Your task to perform on an android device: toggle notifications settings in the gmail app Image 0: 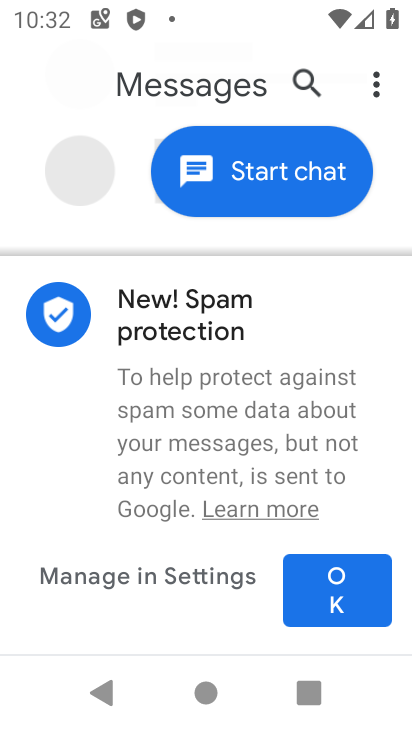
Step 0: press home button
Your task to perform on an android device: toggle notifications settings in the gmail app Image 1: 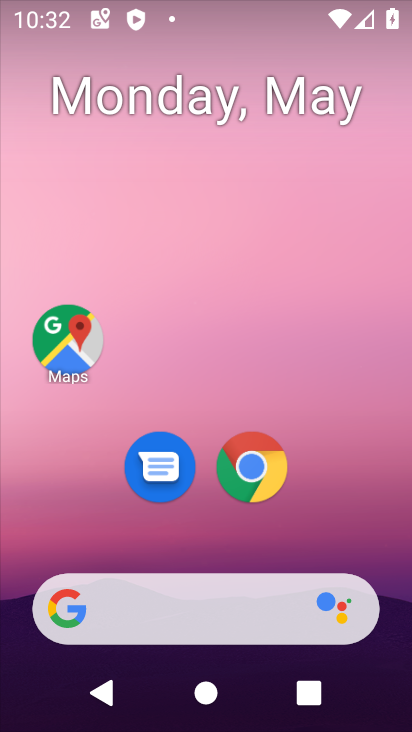
Step 1: drag from (398, 651) to (386, 132)
Your task to perform on an android device: toggle notifications settings in the gmail app Image 2: 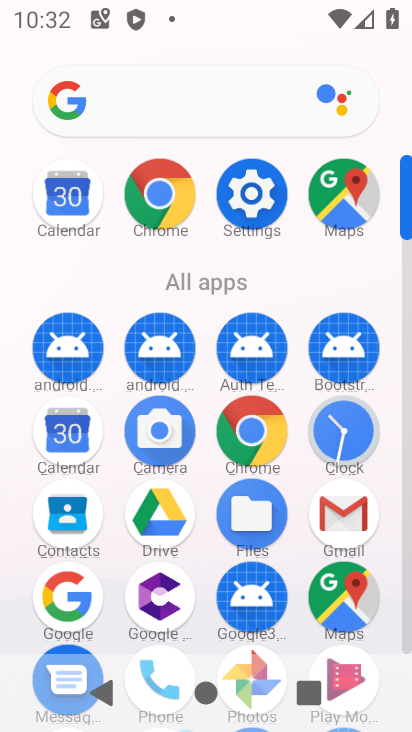
Step 2: click (337, 510)
Your task to perform on an android device: toggle notifications settings in the gmail app Image 3: 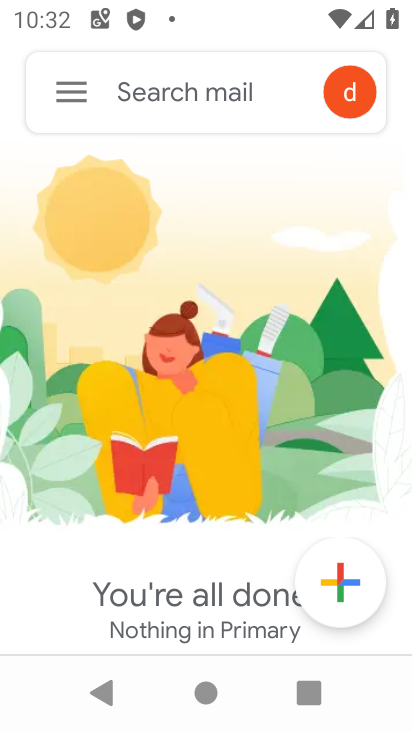
Step 3: click (68, 88)
Your task to perform on an android device: toggle notifications settings in the gmail app Image 4: 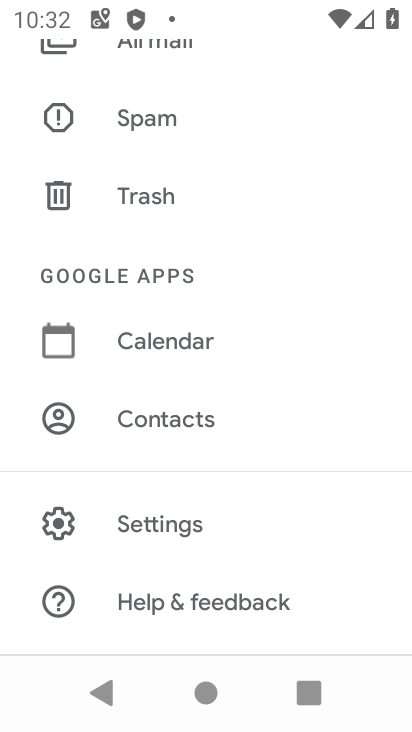
Step 4: click (152, 522)
Your task to perform on an android device: toggle notifications settings in the gmail app Image 5: 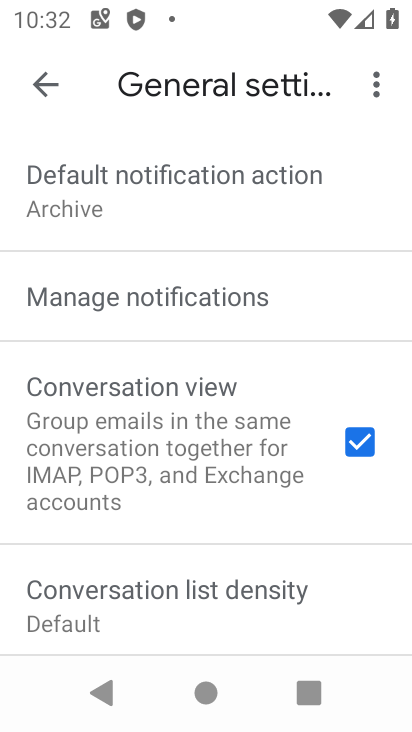
Step 5: click (177, 307)
Your task to perform on an android device: toggle notifications settings in the gmail app Image 6: 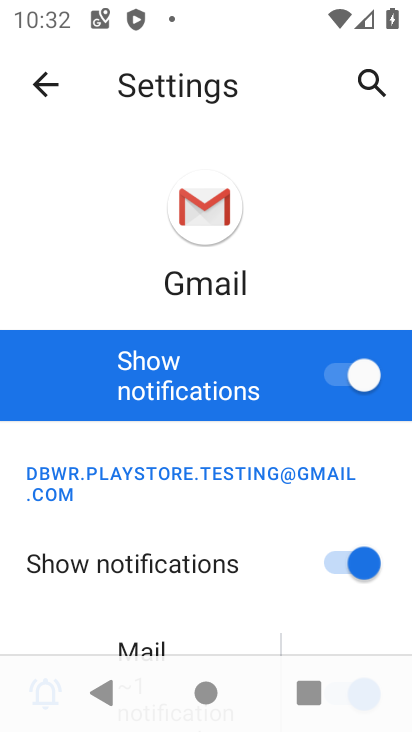
Step 6: click (333, 375)
Your task to perform on an android device: toggle notifications settings in the gmail app Image 7: 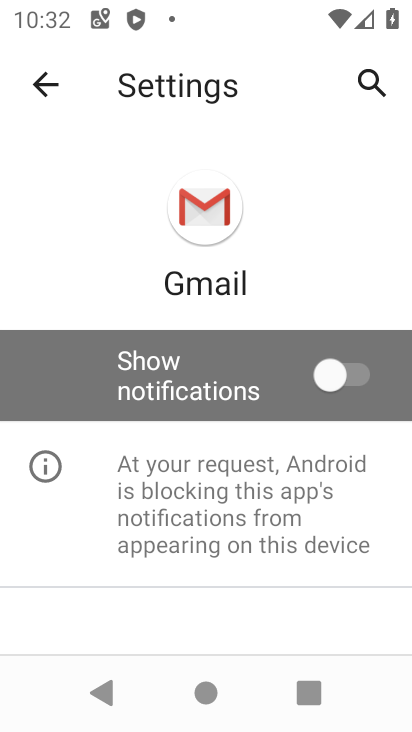
Step 7: task complete